Your task to perform on an android device: allow cookies in the chrome app Image 0: 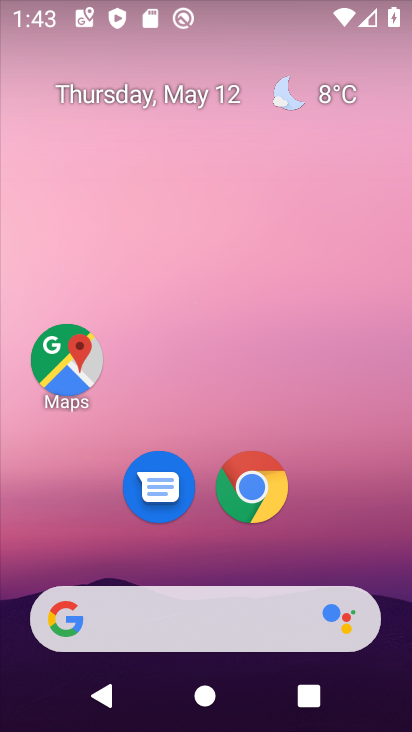
Step 0: click (244, 480)
Your task to perform on an android device: allow cookies in the chrome app Image 1: 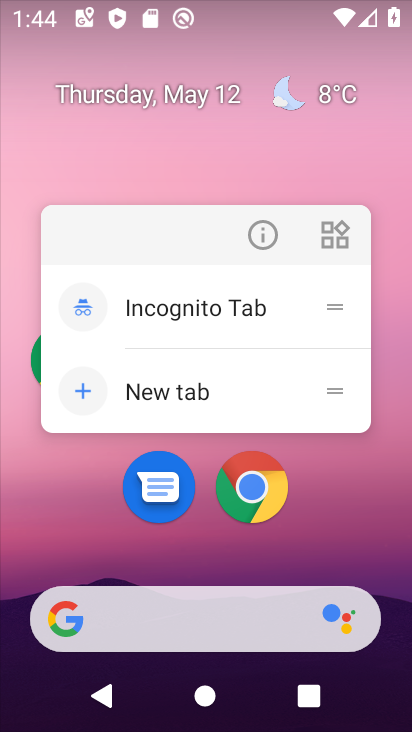
Step 1: click (237, 473)
Your task to perform on an android device: allow cookies in the chrome app Image 2: 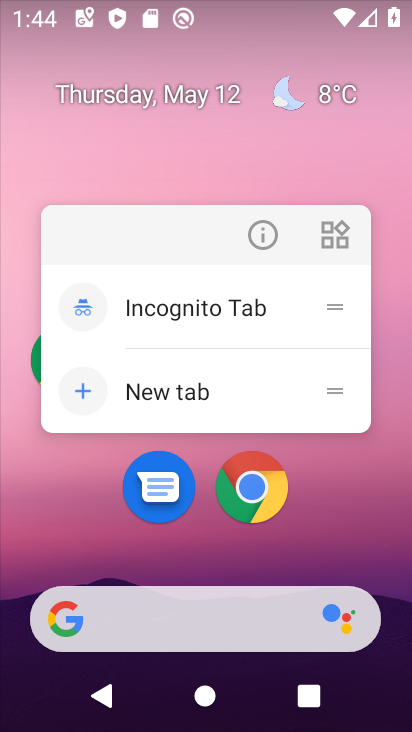
Step 2: click (237, 473)
Your task to perform on an android device: allow cookies in the chrome app Image 3: 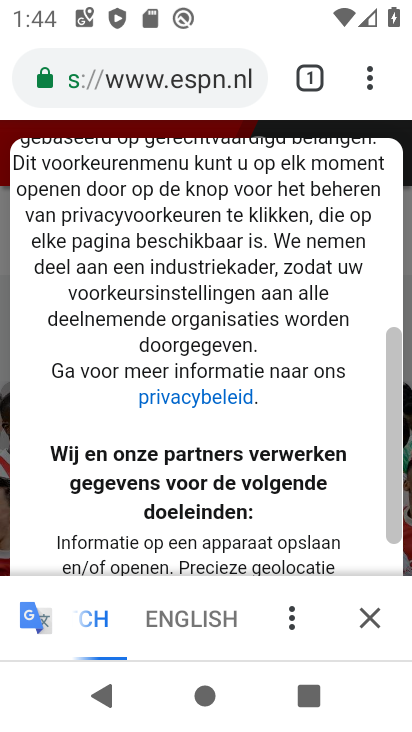
Step 3: click (373, 65)
Your task to perform on an android device: allow cookies in the chrome app Image 4: 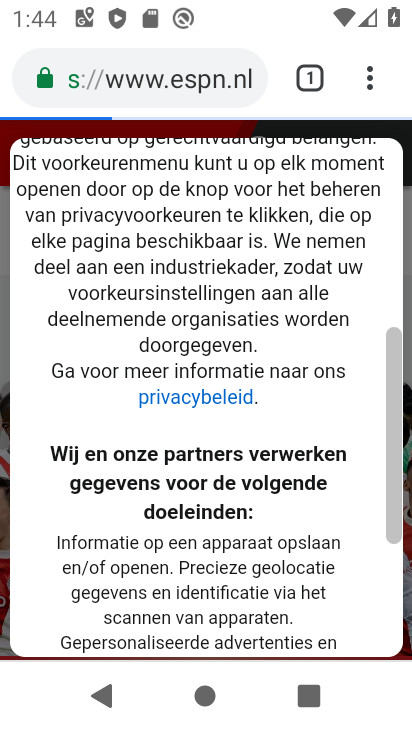
Step 4: click (369, 85)
Your task to perform on an android device: allow cookies in the chrome app Image 5: 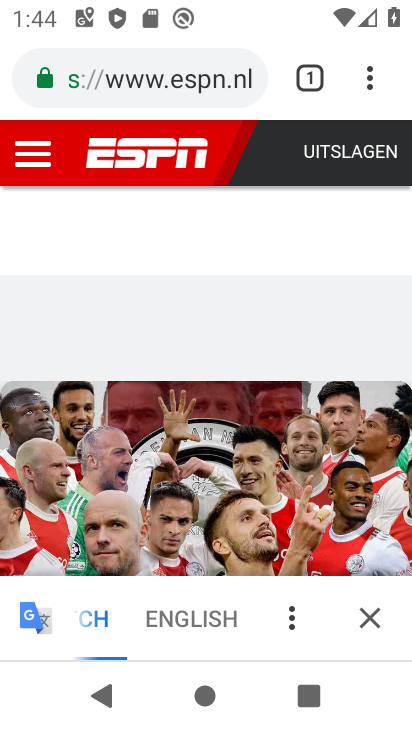
Step 5: click (369, 85)
Your task to perform on an android device: allow cookies in the chrome app Image 6: 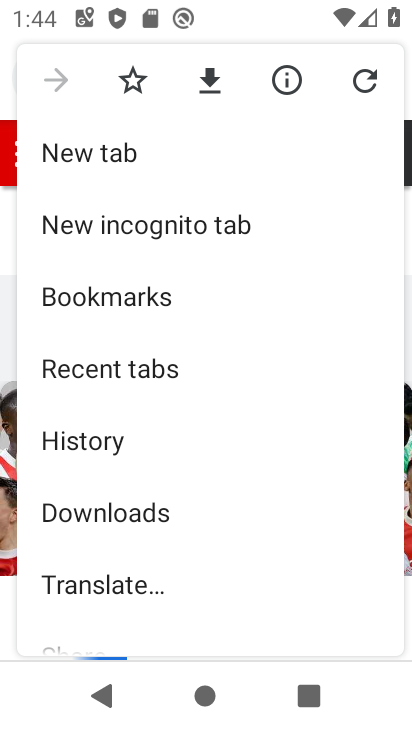
Step 6: drag from (238, 584) to (187, 232)
Your task to perform on an android device: allow cookies in the chrome app Image 7: 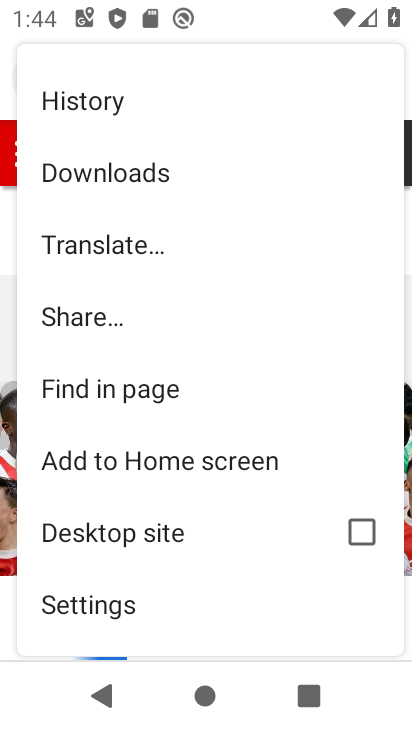
Step 7: click (130, 594)
Your task to perform on an android device: allow cookies in the chrome app Image 8: 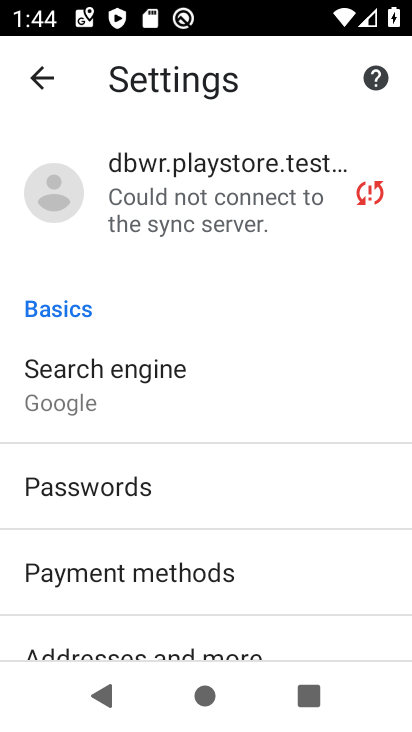
Step 8: drag from (140, 541) to (112, 262)
Your task to perform on an android device: allow cookies in the chrome app Image 9: 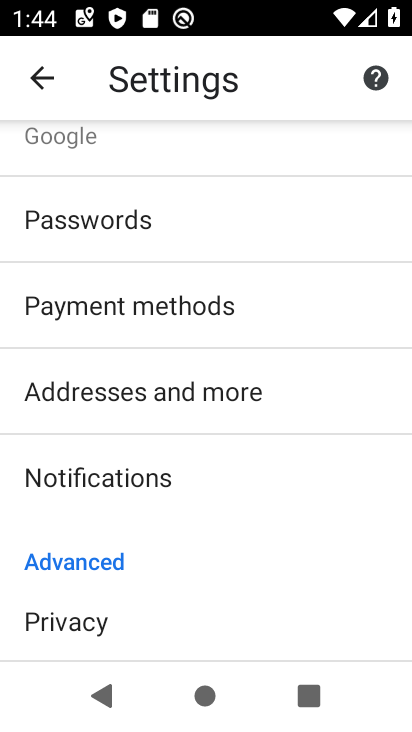
Step 9: drag from (117, 602) to (110, 285)
Your task to perform on an android device: allow cookies in the chrome app Image 10: 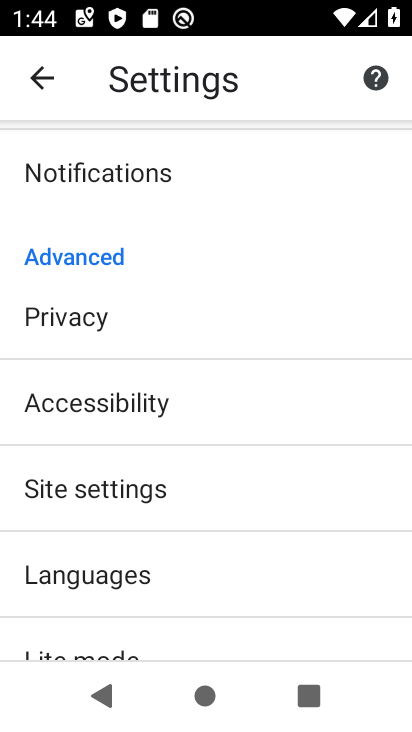
Step 10: click (148, 490)
Your task to perform on an android device: allow cookies in the chrome app Image 11: 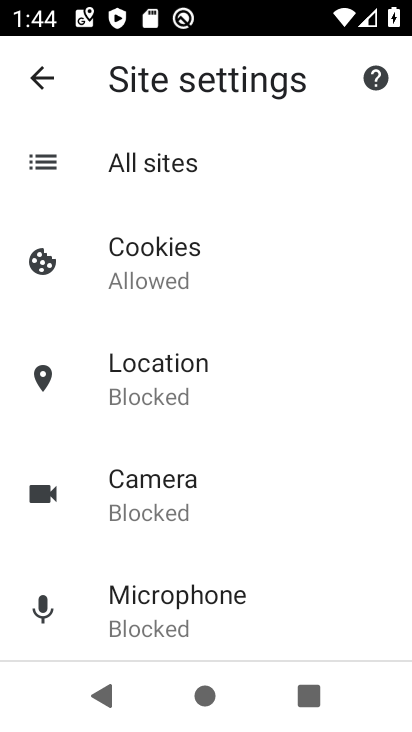
Step 11: click (188, 271)
Your task to perform on an android device: allow cookies in the chrome app Image 12: 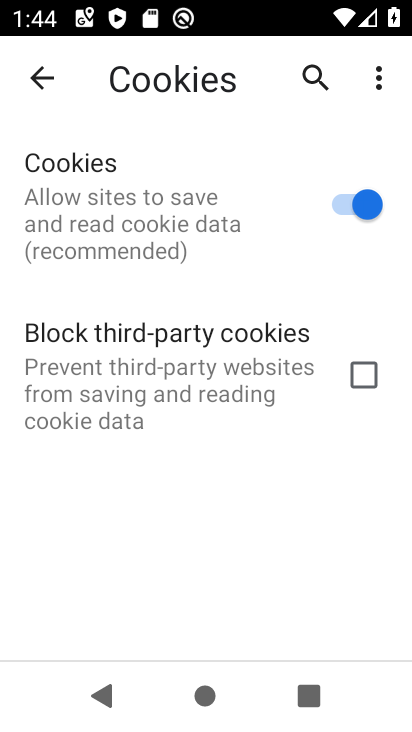
Step 12: task complete